Your task to perform on an android device: change the clock style Image 0: 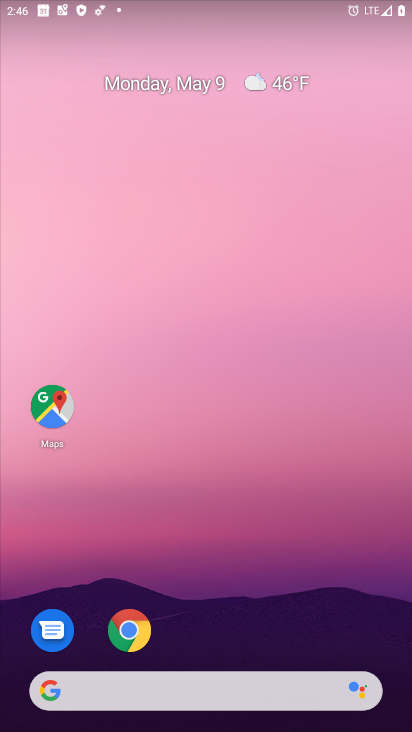
Step 0: drag from (312, 635) to (285, 313)
Your task to perform on an android device: change the clock style Image 1: 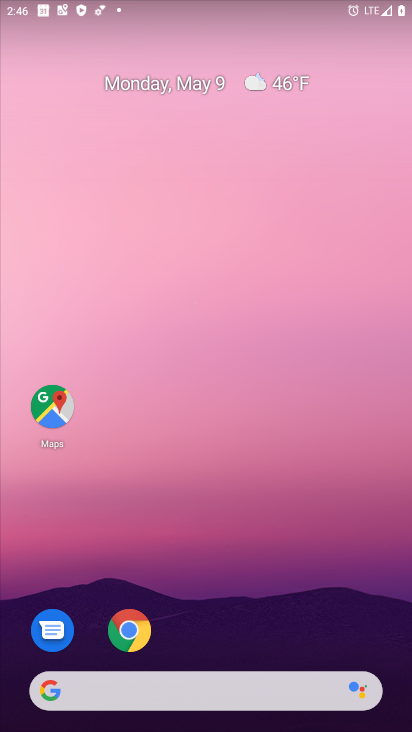
Step 1: drag from (240, 614) to (270, 121)
Your task to perform on an android device: change the clock style Image 2: 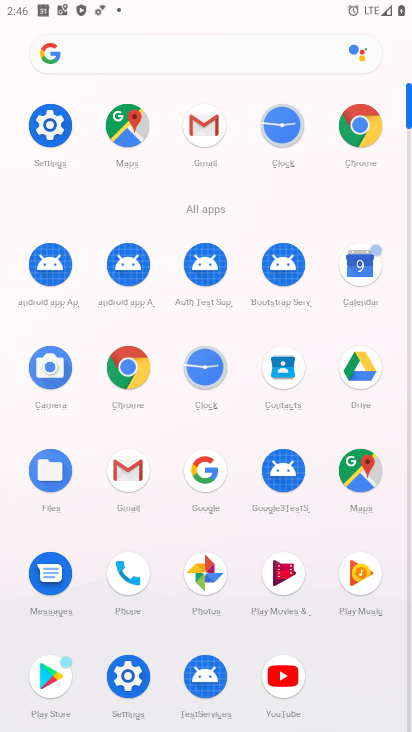
Step 2: click (284, 122)
Your task to perform on an android device: change the clock style Image 3: 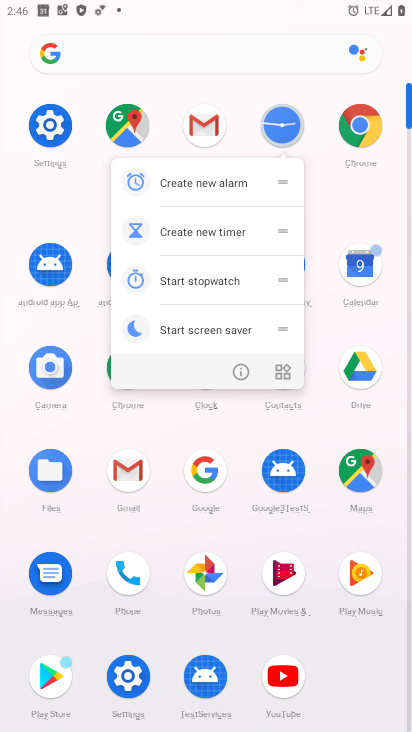
Step 3: click (294, 131)
Your task to perform on an android device: change the clock style Image 4: 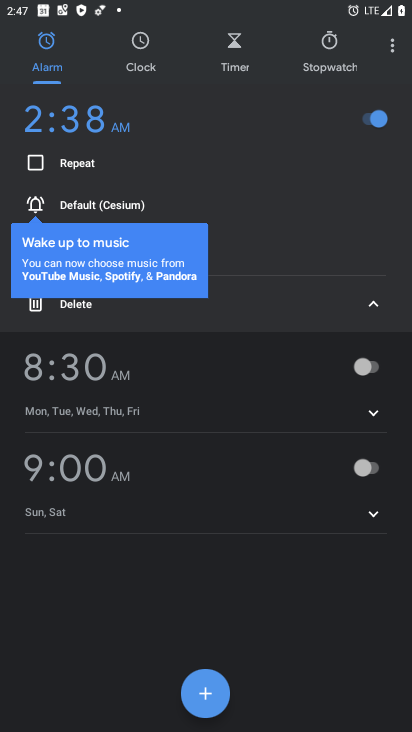
Step 4: click (382, 50)
Your task to perform on an android device: change the clock style Image 5: 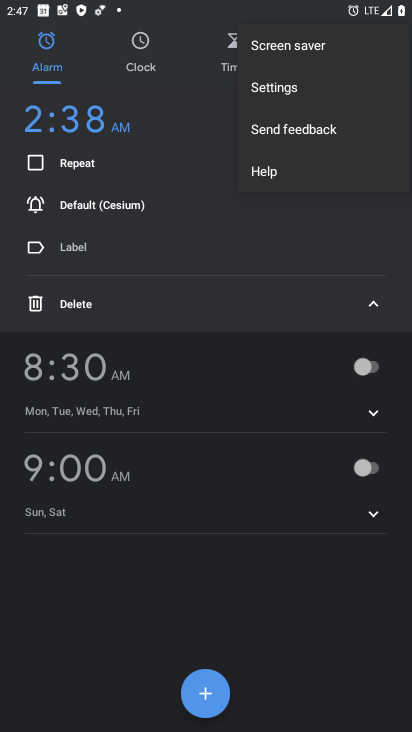
Step 5: click (322, 87)
Your task to perform on an android device: change the clock style Image 6: 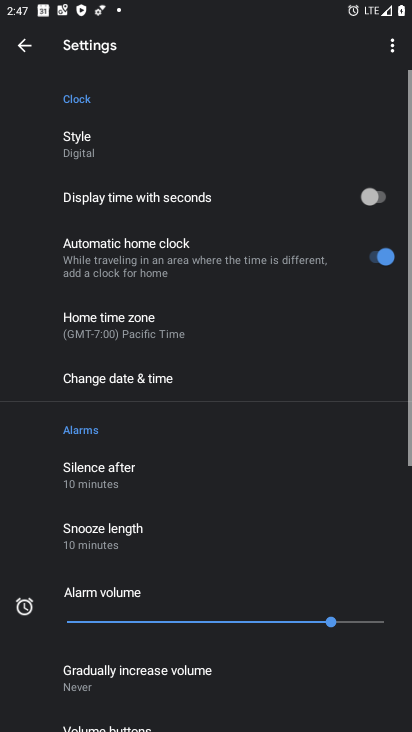
Step 6: click (52, 149)
Your task to perform on an android device: change the clock style Image 7: 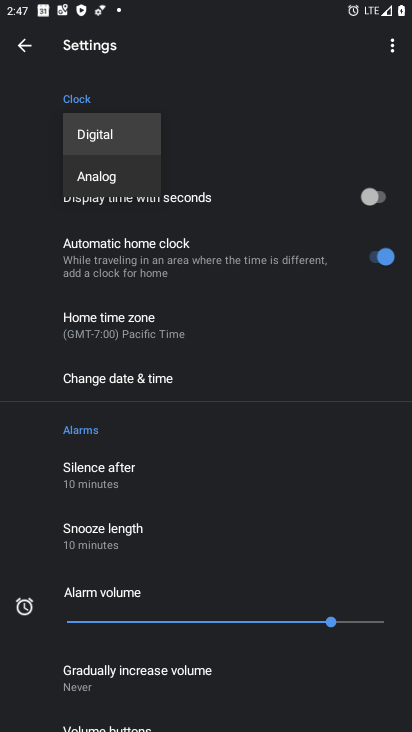
Step 7: click (76, 178)
Your task to perform on an android device: change the clock style Image 8: 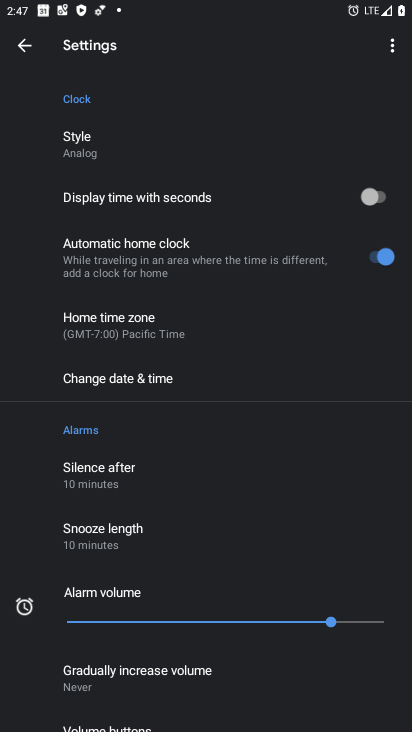
Step 8: task complete